Your task to perform on an android device: Open Yahoo.com Image 0: 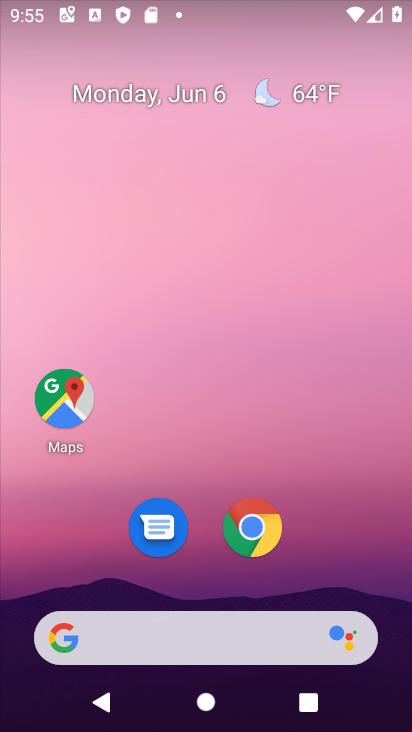
Step 0: drag from (249, 449) to (259, 392)
Your task to perform on an android device: Open Yahoo.com Image 1: 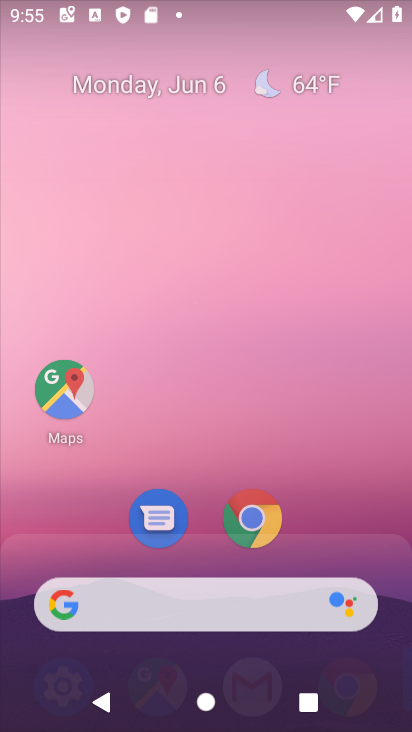
Step 1: drag from (278, 191) to (278, 91)
Your task to perform on an android device: Open Yahoo.com Image 2: 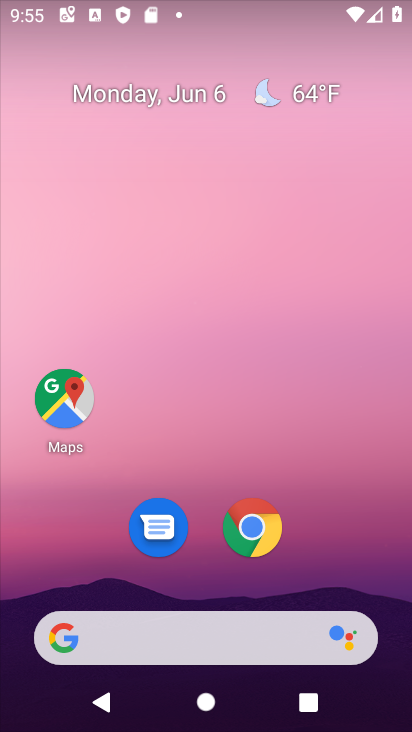
Step 2: drag from (229, 546) to (261, 299)
Your task to perform on an android device: Open Yahoo.com Image 3: 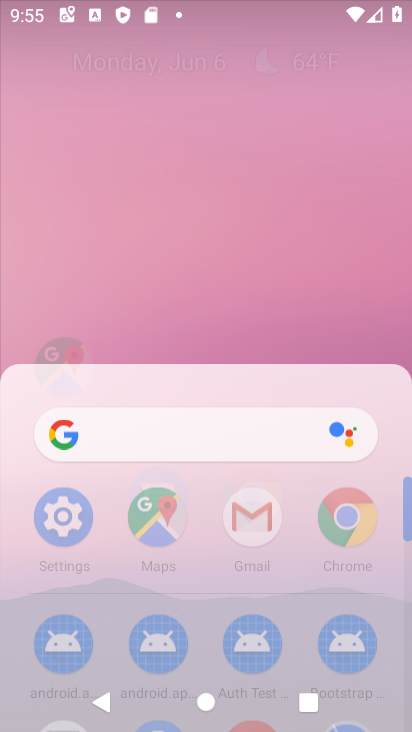
Step 3: drag from (283, 215) to (317, 141)
Your task to perform on an android device: Open Yahoo.com Image 4: 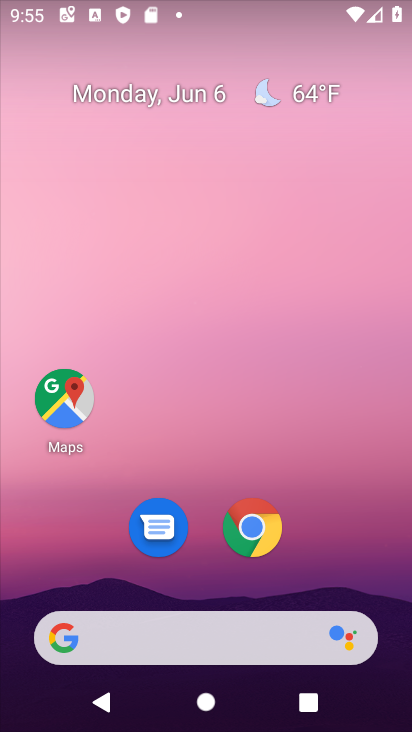
Step 4: click (255, 560)
Your task to perform on an android device: Open Yahoo.com Image 5: 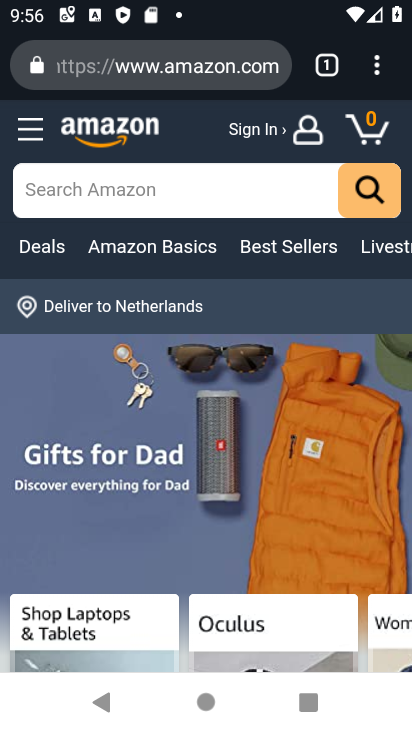
Step 5: click (140, 74)
Your task to perform on an android device: Open Yahoo.com Image 6: 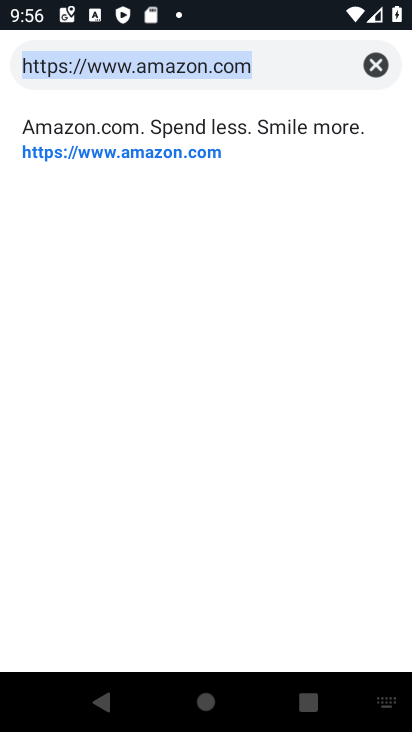
Step 6: type "yahoo"
Your task to perform on an android device: Open Yahoo.com Image 7: 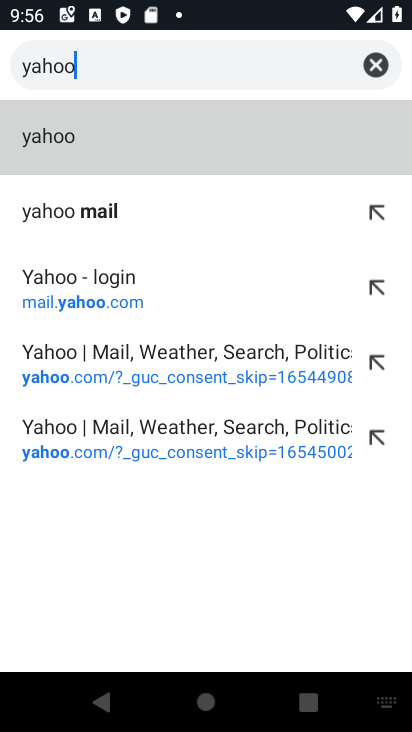
Step 7: click (146, 291)
Your task to perform on an android device: Open Yahoo.com Image 8: 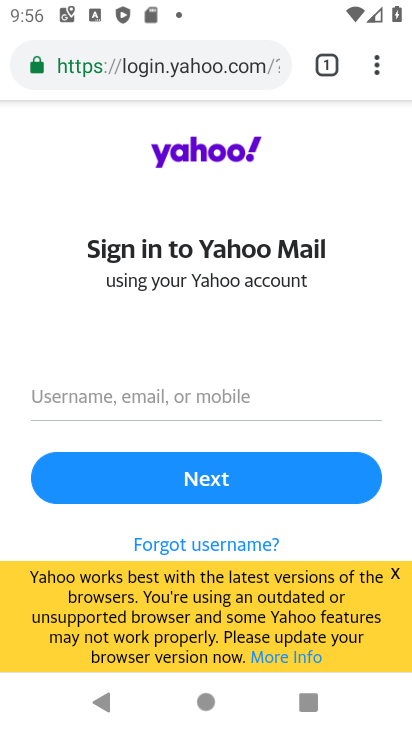
Step 8: task complete